Your task to perform on an android device: set an alarm Image 0: 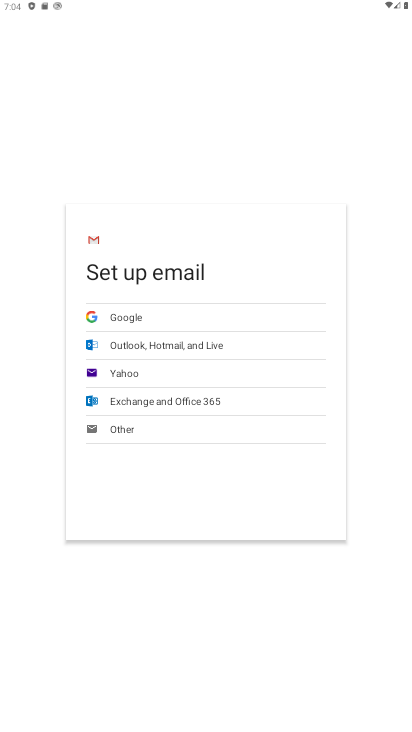
Step 0: press home button
Your task to perform on an android device: set an alarm Image 1: 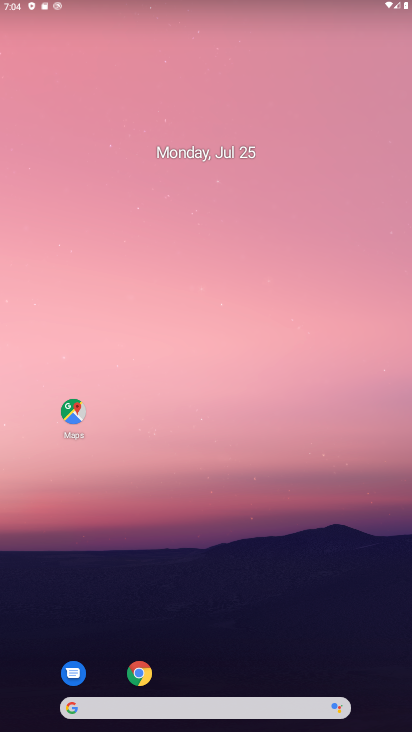
Step 1: drag from (296, 655) to (257, 208)
Your task to perform on an android device: set an alarm Image 2: 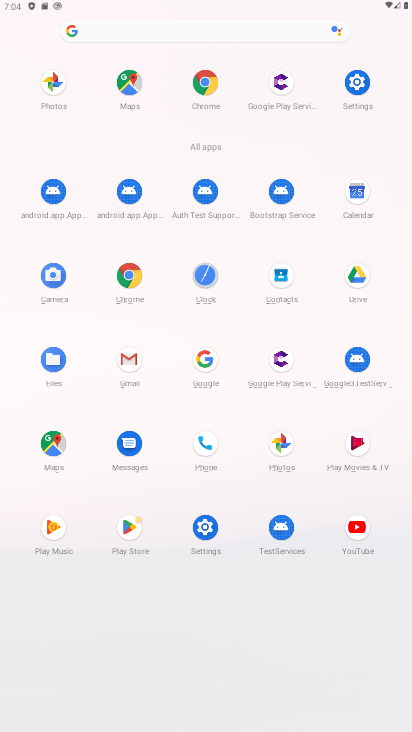
Step 2: click (198, 277)
Your task to perform on an android device: set an alarm Image 3: 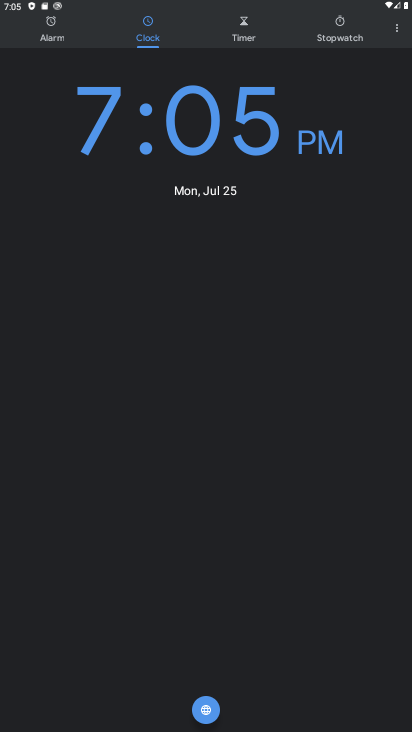
Step 3: click (50, 34)
Your task to perform on an android device: set an alarm Image 4: 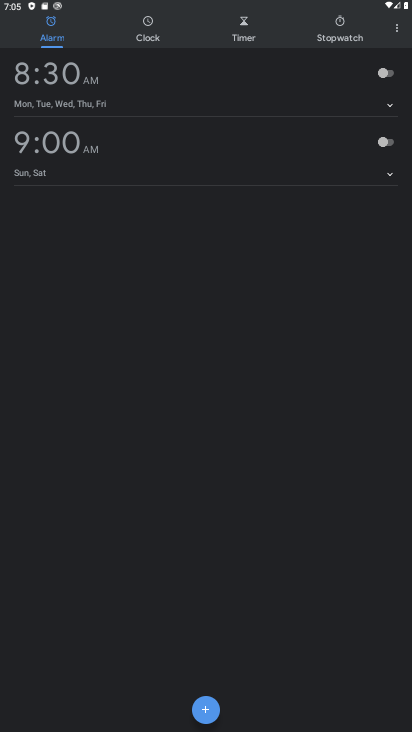
Step 4: click (375, 66)
Your task to perform on an android device: set an alarm Image 5: 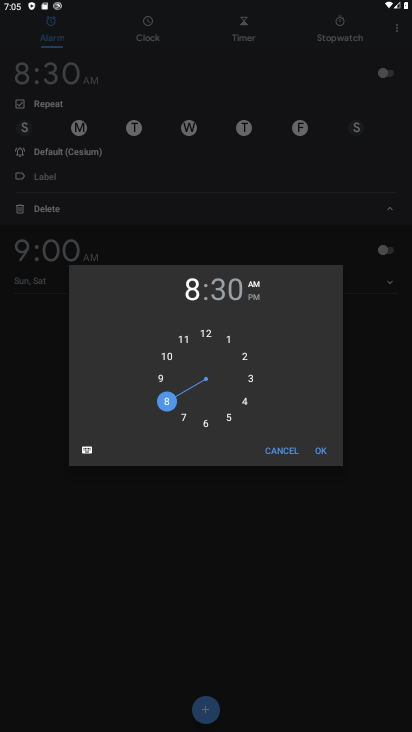
Step 5: click (387, 71)
Your task to perform on an android device: set an alarm Image 6: 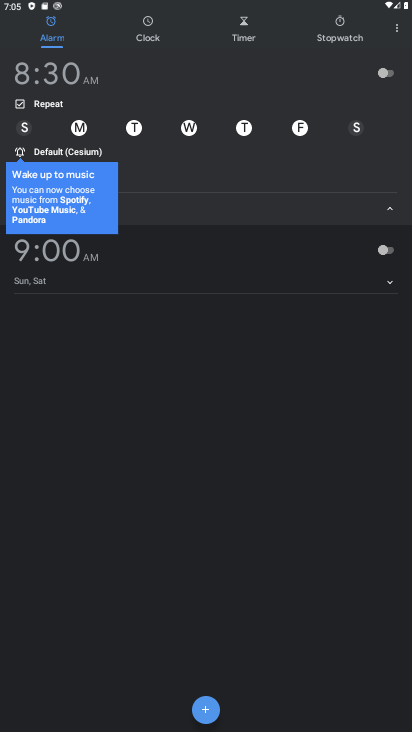
Step 6: click (337, 159)
Your task to perform on an android device: set an alarm Image 7: 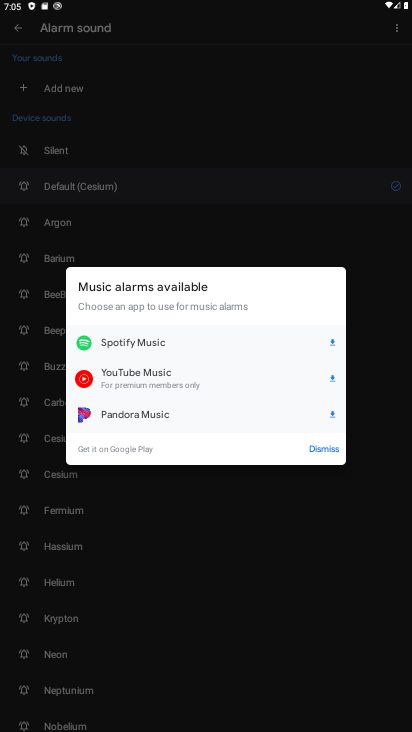
Step 7: click (327, 464)
Your task to perform on an android device: set an alarm Image 8: 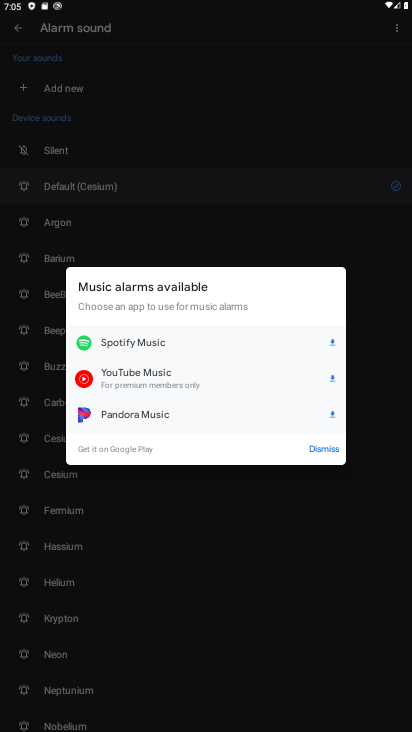
Step 8: click (327, 442)
Your task to perform on an android device: set an alarm Image 9: 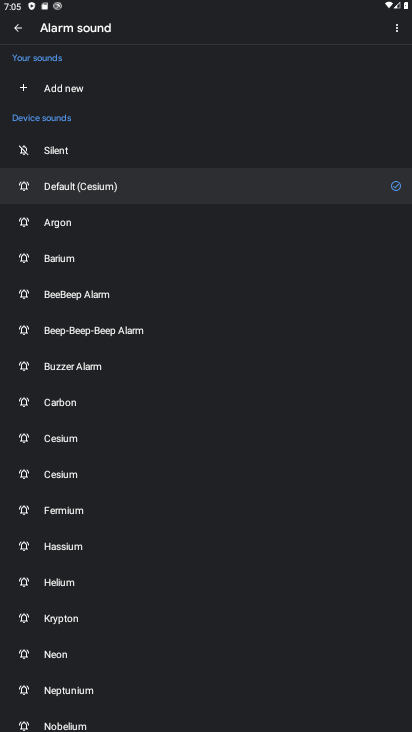
Step 9: press back button
Your task to perform on an android device: set an alarm Image 10: 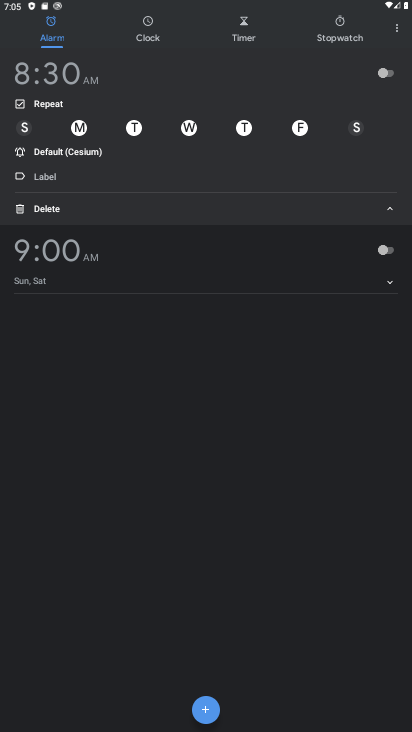
Step 10: click (383, 70)
Your task to perform on an android device: set an alarm Image 11: 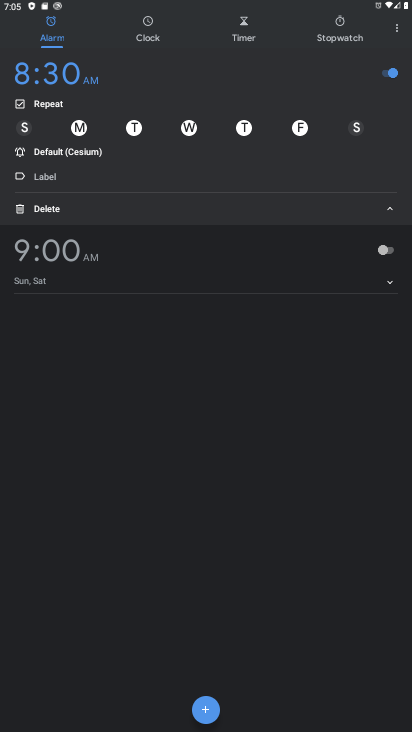
Step 11: task complete